Your task to perform on an android device: change the clock style Image 0: 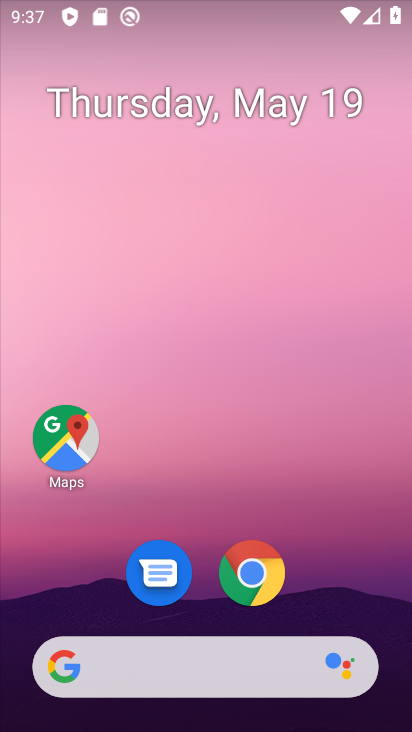
Step 0: drag from (196, 627) to (207, 106)
Your task to perform on an android device: change the clock style Image 1: 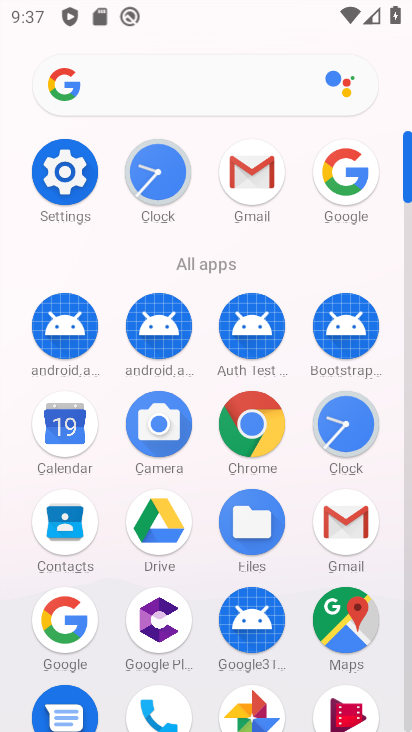
Step 1: click (163, 200)
Your task to perform on an android device: change the clock style Image 2: 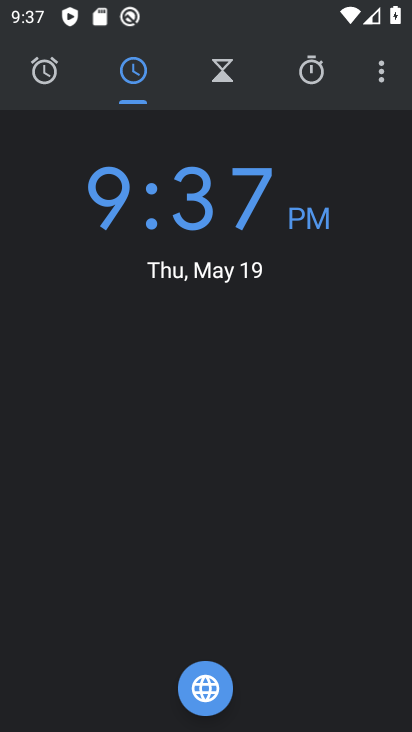
Step 2: click (393, 69)
Your task to perform on an android device: change the clock style Image 3: 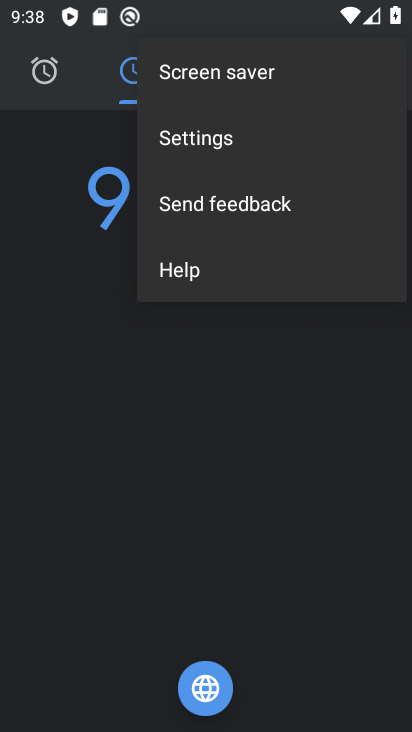
Step 3: click (229, 125)
Your task to perform on an android device: change the clock style Image 4: 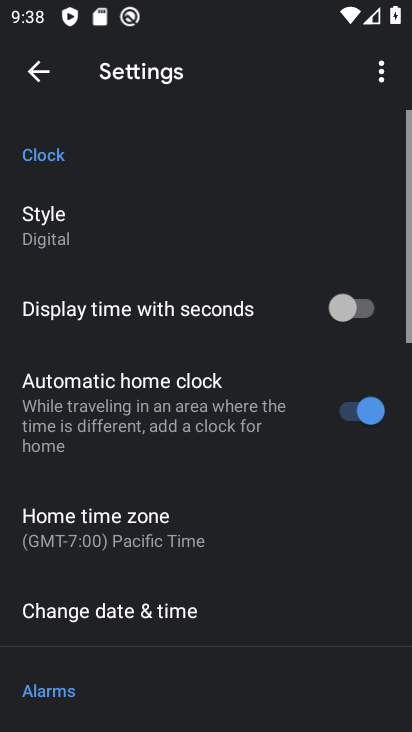
Step 4: click (109, 219)
Your task to perform on an android device: change the clock style Image 5: 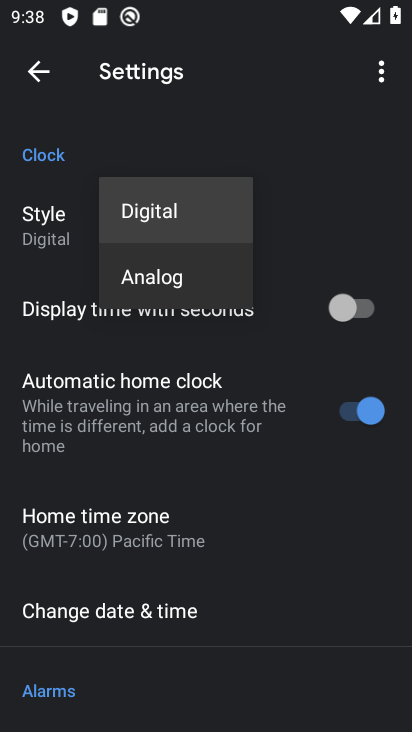
Step 5: click (148, 265)
Your task to perform on an android device: change the clock style Image 6: 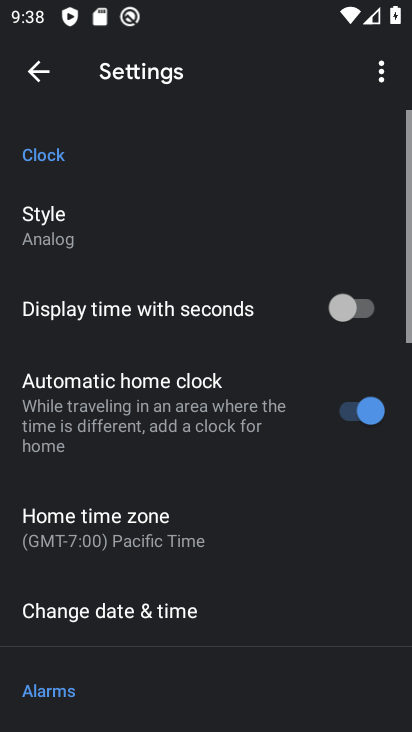
Step 6: task complete